Your task to perform on an android device: Open Google Image 0: 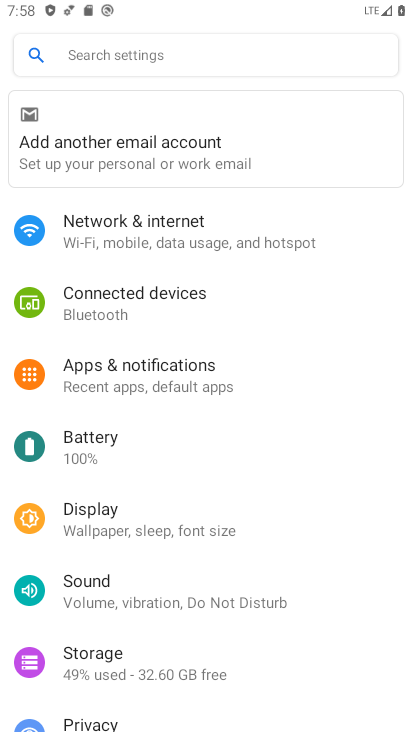
Step 0: press home button
Your task to perform on an android device: Open Google Image 1: 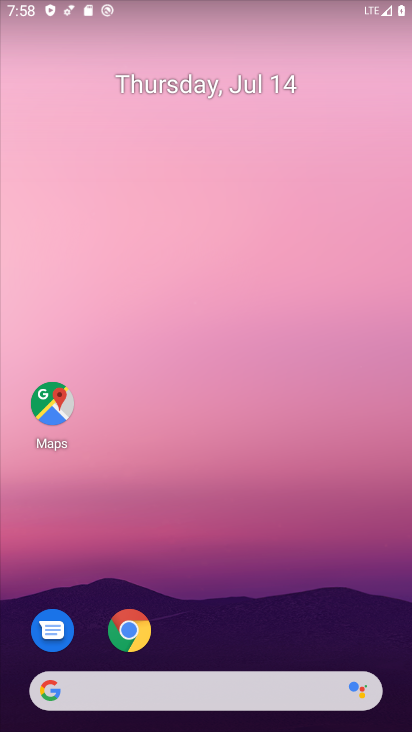
Step 1: drag from (236, 645) to (233, 387)
Your task to perform on an android device: Open Google Image 2: 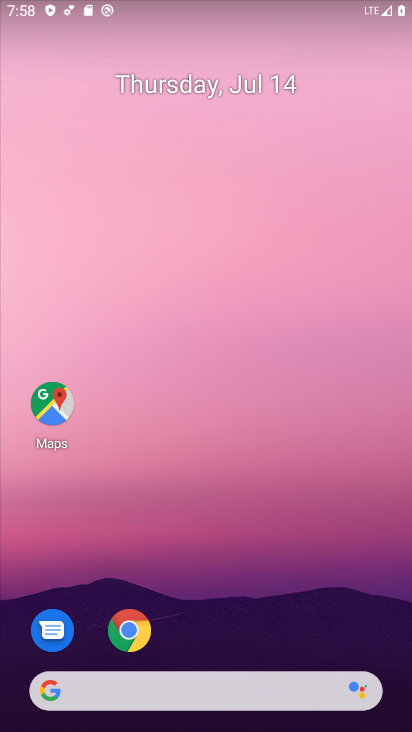
Step 2: drag from (271, 585) to (279, 382)
Your task to perform on an android device: Open Google Image 3: 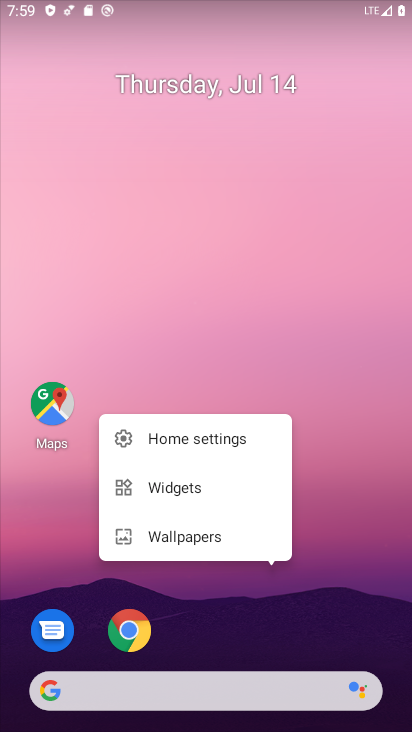
Step 3: click (294, 595)
Your task to perform on an android device: Open Google Image 4: 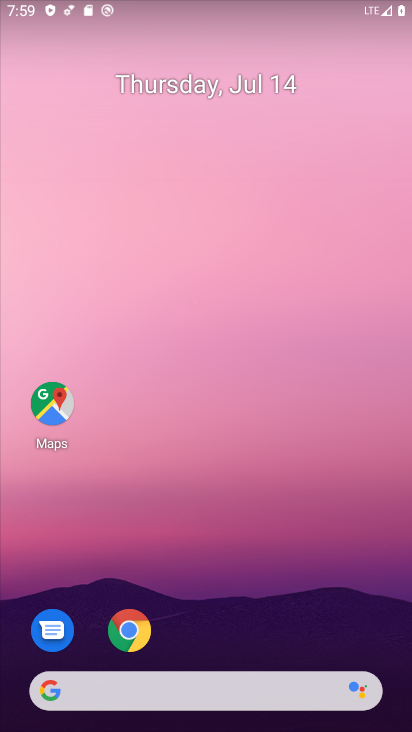
Step 4: drag from (226, 604) to (226, 483)
Your task to perform on an android device: Open Google Image 5: 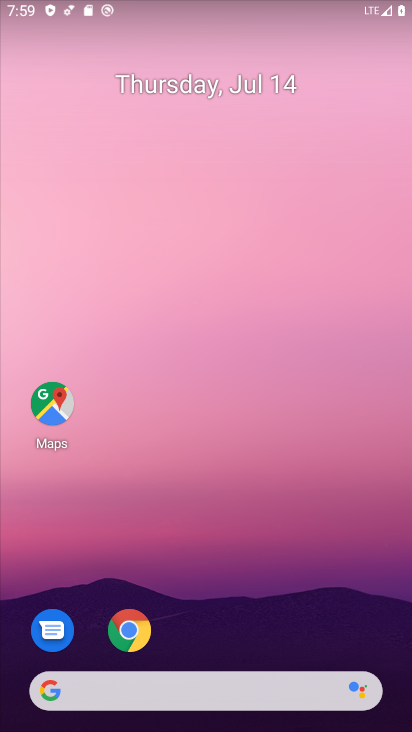
Step 5: drag from (261, 607) to (272, 355)
Your task to perform on an android device: Open Google Image 6: 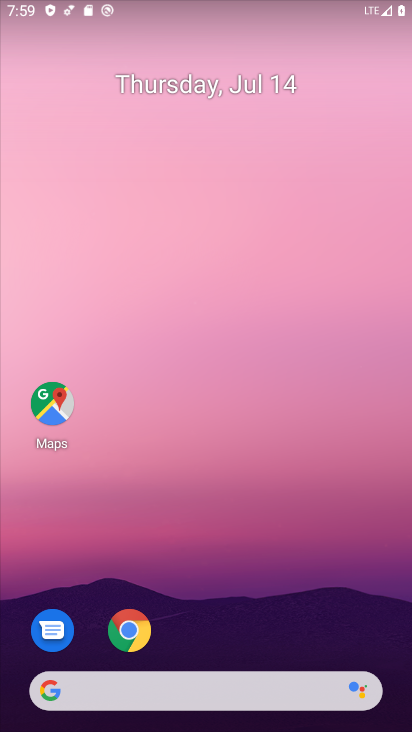
Step 6: drag from (234, 606) to (232, 370)
Your task to perform on an android device: Open Google Image 7: 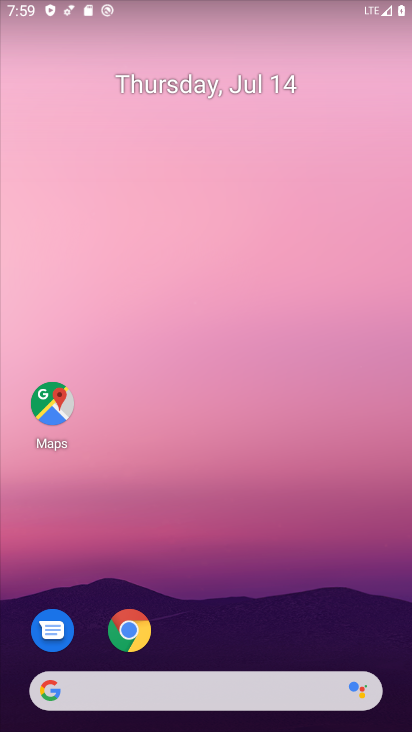
Step 7: drag from (233, 599) to (223, 412)
Your task to perform on an android device: Open Google Image 8: 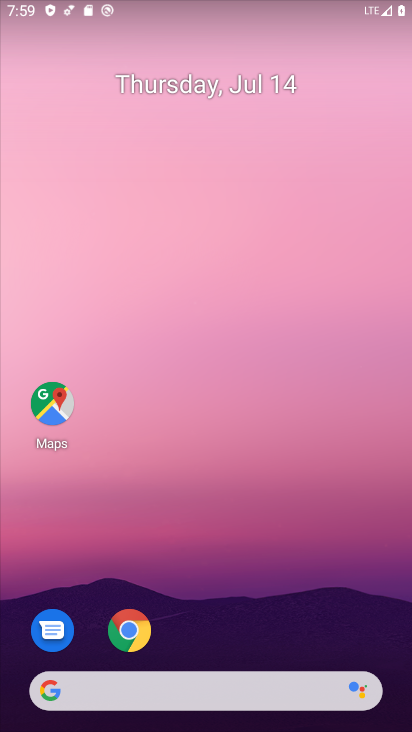
Step 8: drag from (271, 699) to (249, 370)
Your task to perform on an android device: Open Google Image 9: 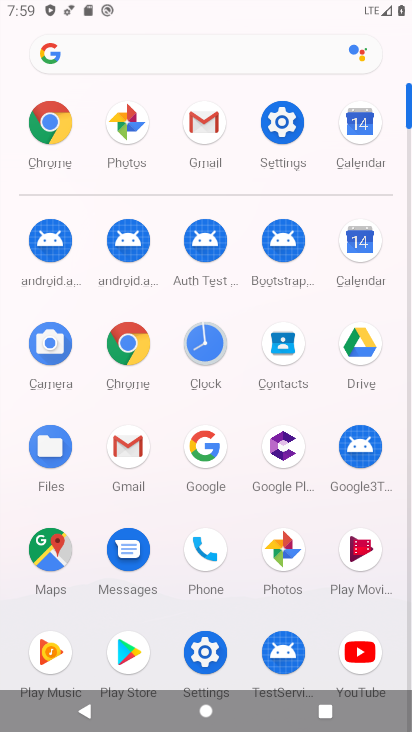
Step 9: drag from (194, 413) to (206, 448)
Your task to perform on an android device: Open Google Image 10: 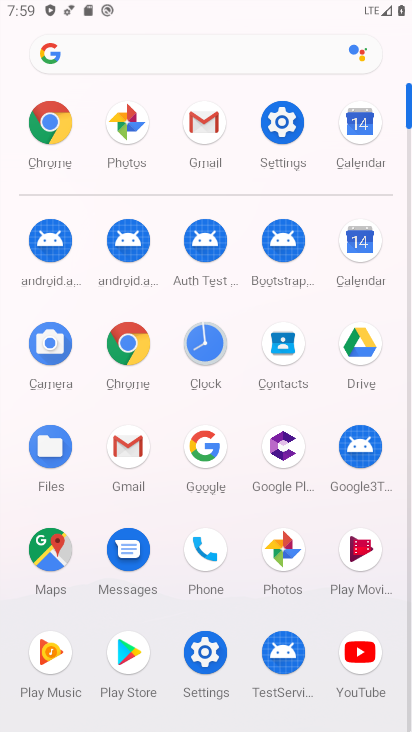
Step 10: click (196, 442)
Your task to perform on an android device: Open Google Image 11: 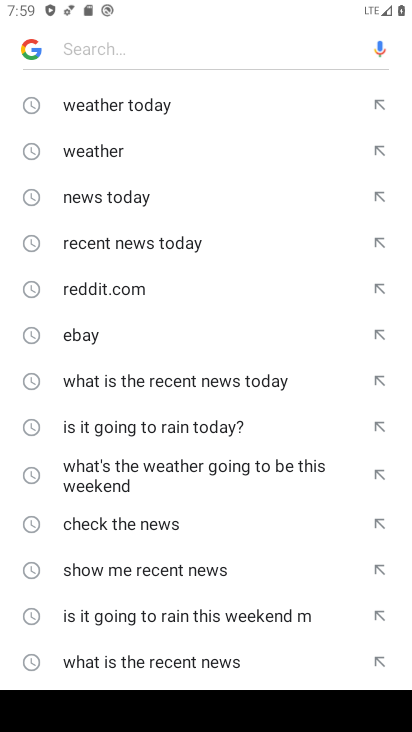
Step 11: task complete